Your task to perform on an android device: toggle javascript in the chrome app Image 0: 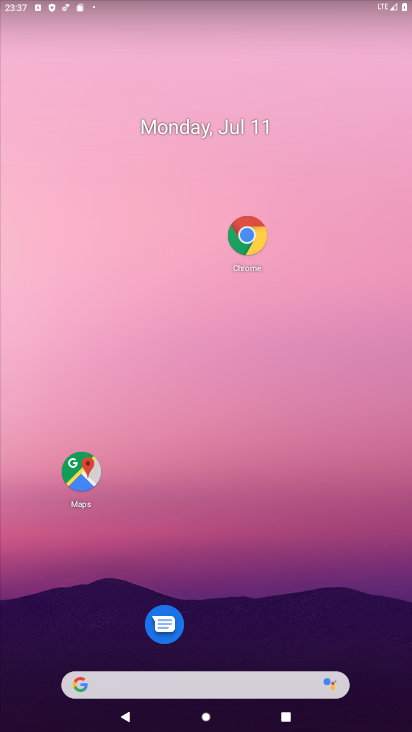
Step 0: click (250, 246)
Your task to perform on an android device: toggle javascript in the chrome app Image 1: 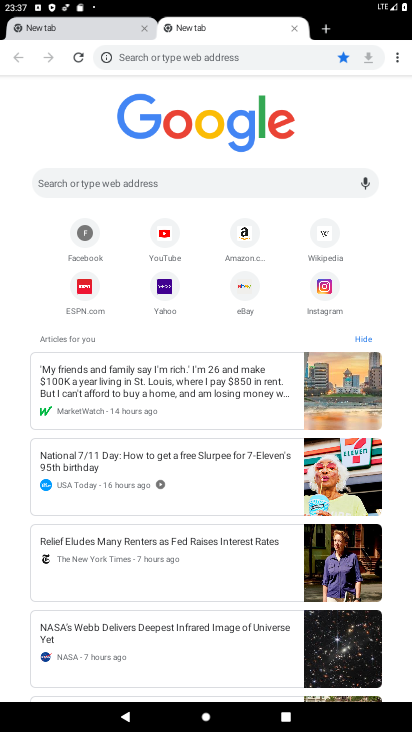
Step 1: click (390, 61)
Your task to perform on an android device: toggle javascript in the chrome app Image 2: 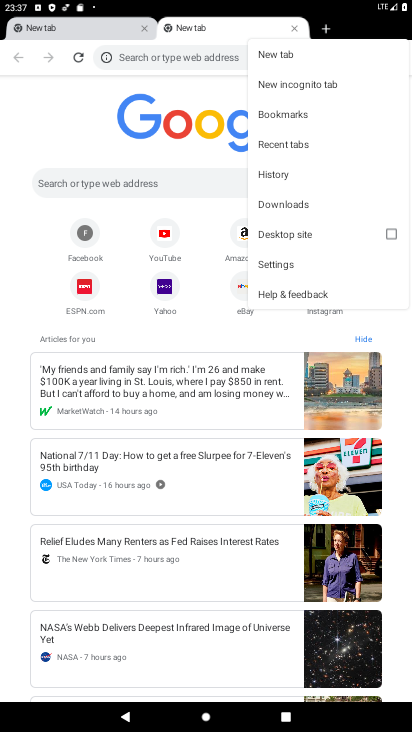
Step 2: click (285, 262)
Your task to perform on an android device: toggle javascript in the chrome app Image 3: 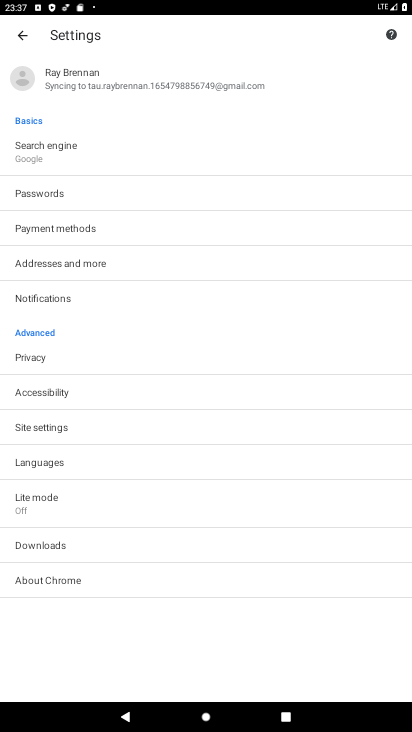
Step 3: click (82, 428)
Your task to perform on an android device: toggle javascript in the chrome app Image 4: 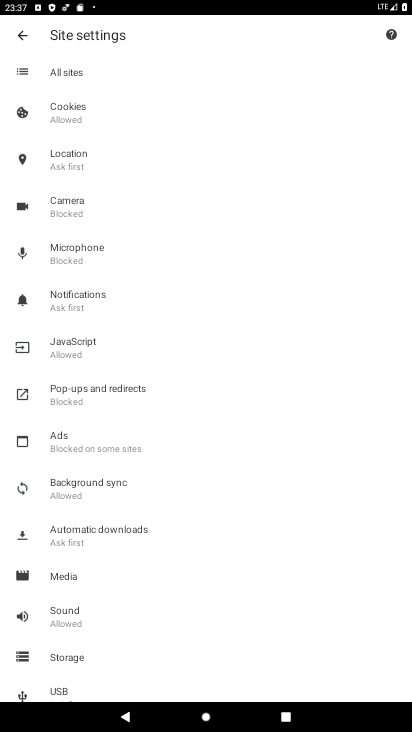
Step 4: click (93, 342)
Your task to perform on an android device: toggle javascript in the chrome app Image 5: 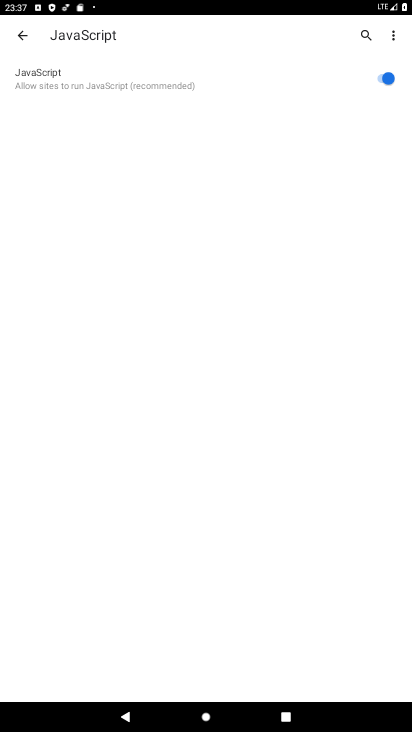
Step 5: click (382, 83)
Your task to perform on an android device: toggle javascript in the chrome app Image 6: 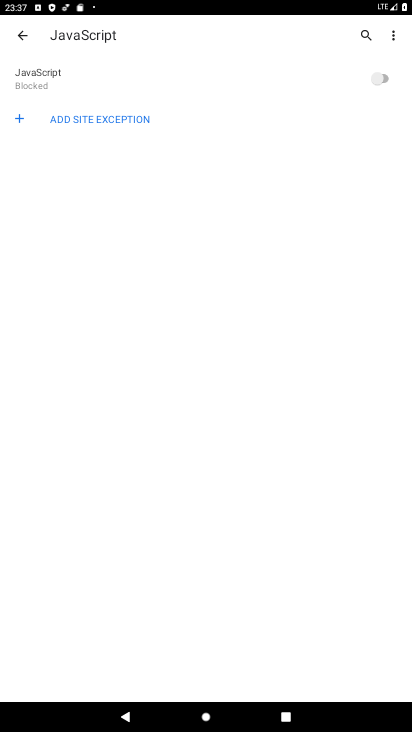
Step 6: task complete